Your task to perform on an android device: find photos in the google photos app Image 0: 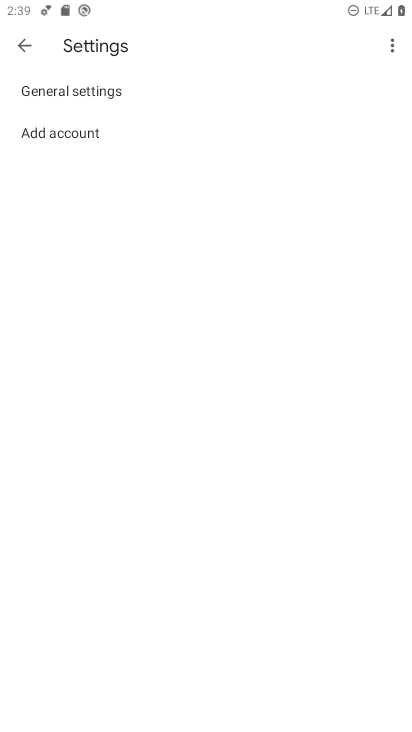
Step 0: press home button
Your task to perform on an android device: find photos in the google photos app Image 1: 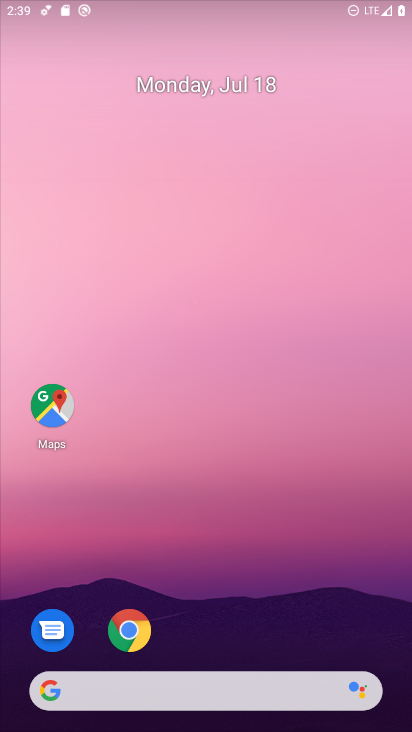
Step 1: drag from (252, 629) to (252, 137)
Your task to perform on an android device: find photos in the google photos app Image 2: 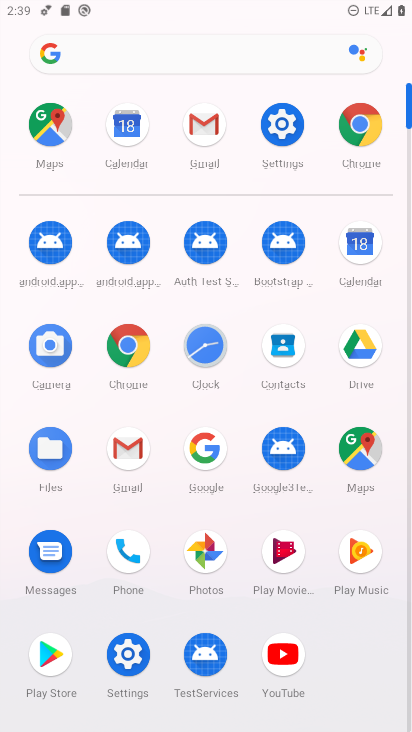
Step 2: click (205, 553)
Your task to perform on an android device: find photos in the google photos app Image 3: 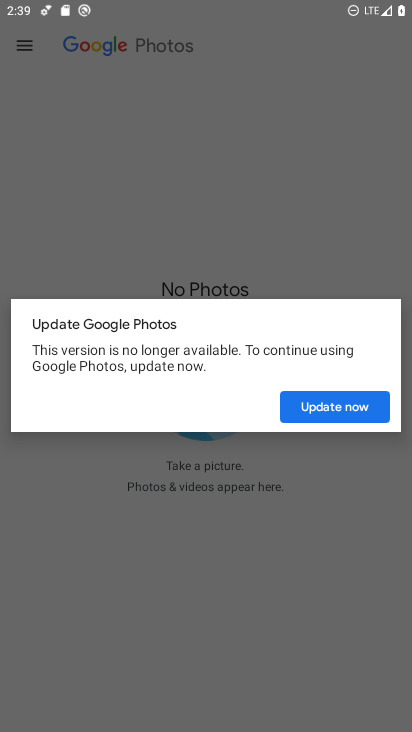
Step 3: click (338, 407)
Your task to perform on an android device: find photos in the google photos app Image 4: 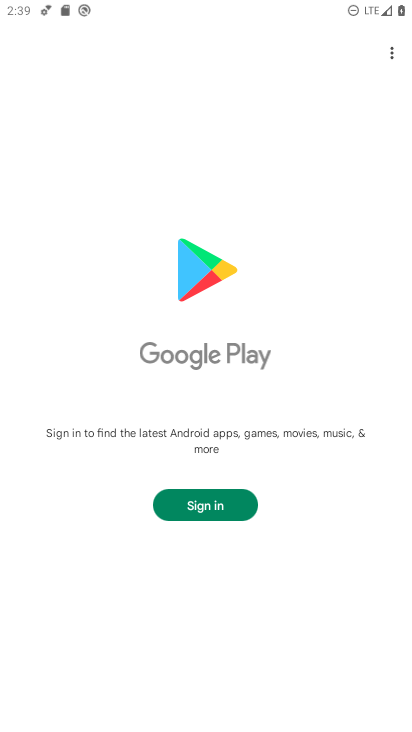
Step 4: click (183, 502)
Your task to perform on an android device: find photos in the google photos app Image 5: 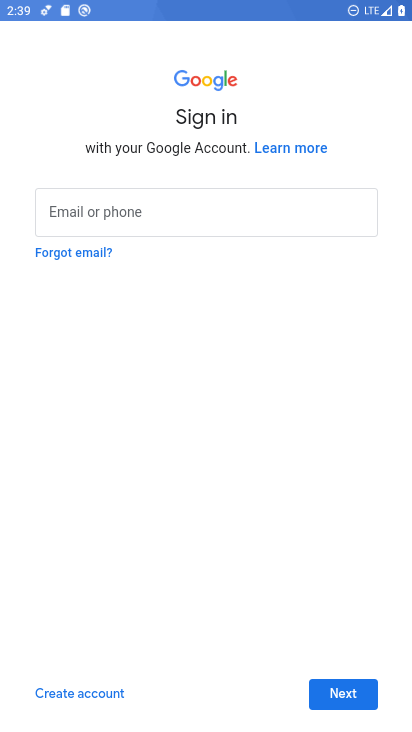
Step 5: task complete